Your task to perform on an android device: Go to ESPN.com Image 0: 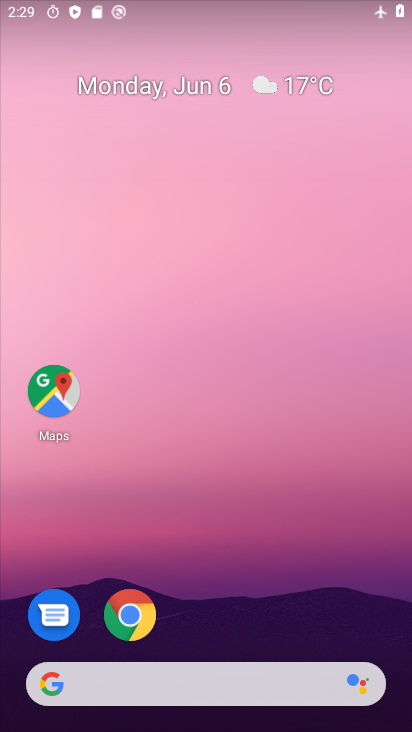
Step 0: click (139, 627)
Your task to perform on an android device: Go to ESPN.com Image 1: 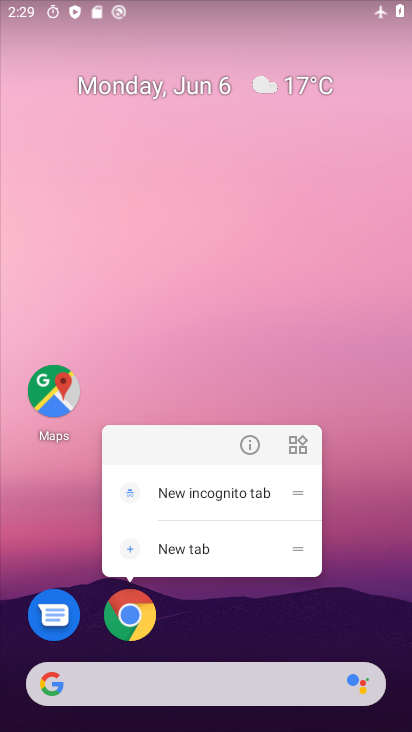
Step 1: click (139, 627)
Your task to perform on an android device: Go to ESPN.com Image 2: 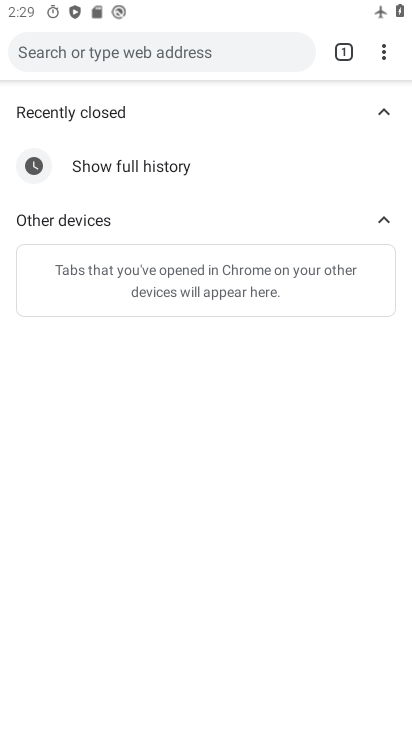
Step 2: click (127, 44)
Your task to perform on an android device: Go to ESPN.com Image 3: 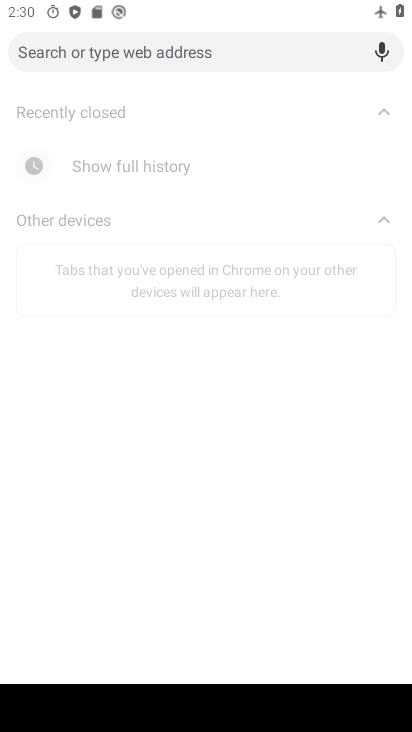
Step 3: type "ESPN.com"
Your task to perform on an android device: Go to ESPN.com Image 4: 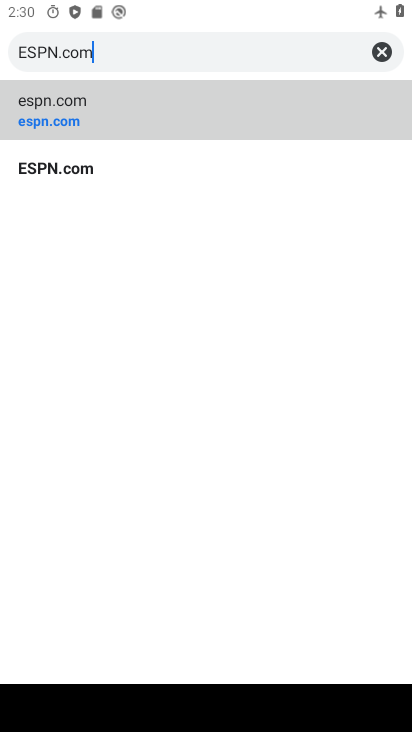
Step 4: click (61, 177)
Your task to perform on an android device: Go to ESPN.com Image 5: 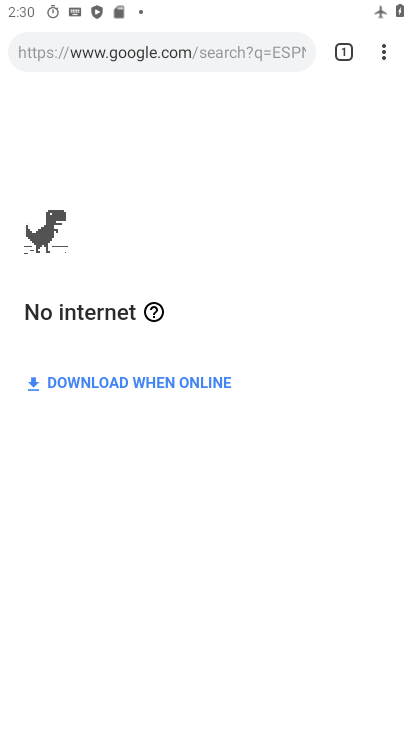
Step 5: task complete